Your task to perform on an android device: What's the weather going to be this weekend? Image 0: 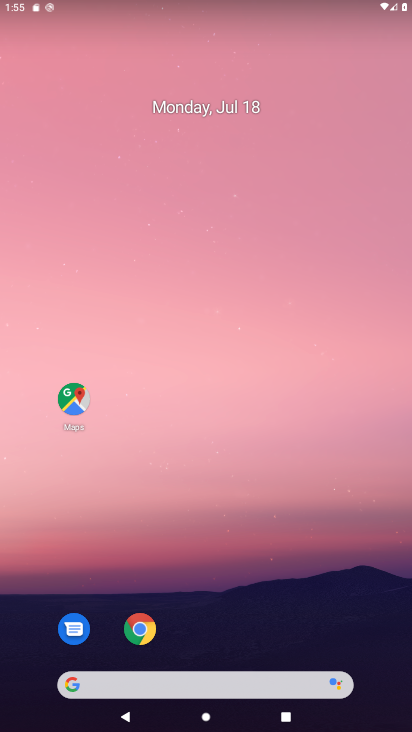
Step 0: drag from (183, 530) to (272, 0)
Your task to perform on an android device: What's the weather going to be this weekend? Image 1: 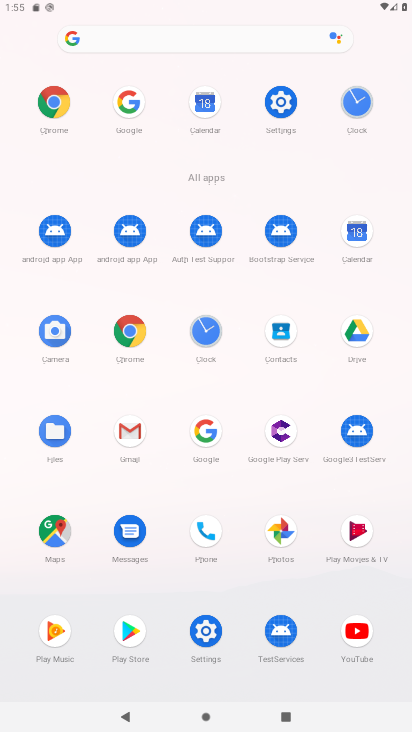
Step 1: click (206, 432)
Your task to perform on an android device: What's the weather going to be this weekend? Image 2: 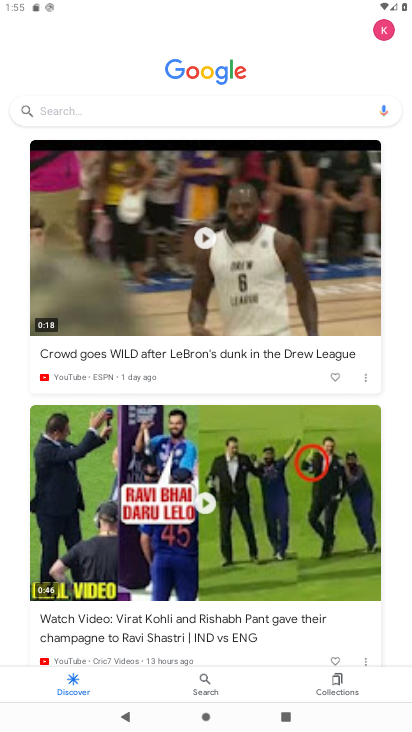
Step 2: click (177, 105)
Your task to perform on an android device: What's the weather going to be this weekend? Image 3: 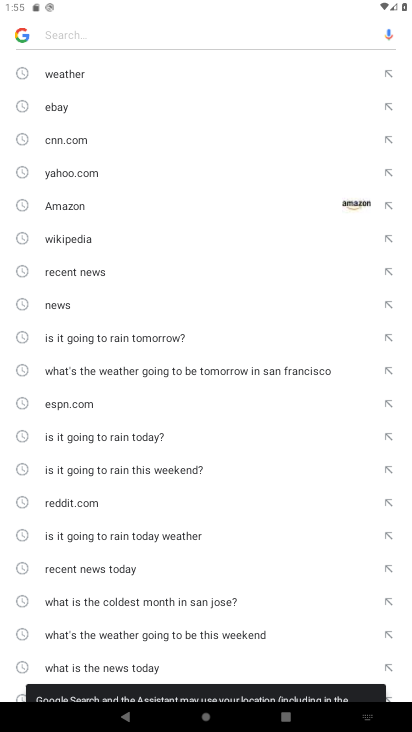
Step 3: click (73, 80)
Your task to perform on an android device: What's the weather going to be this weekend? Image 4: 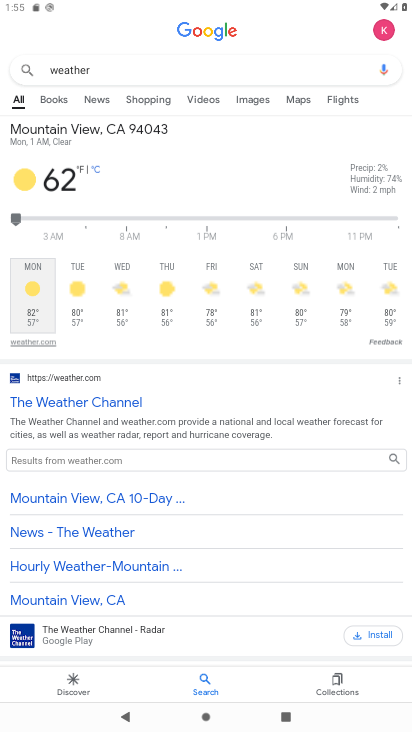
Step 4: click (33, 344)
Your task to perform on an android device: What's the weather going to be this weekend? Image 5: 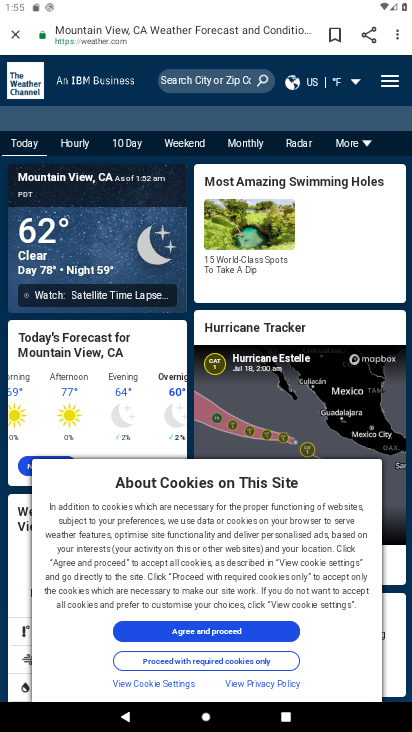
Step 5: click (169, 151)
Your task to perform on an android device: What's the weather going to be this weekend? Image 6: 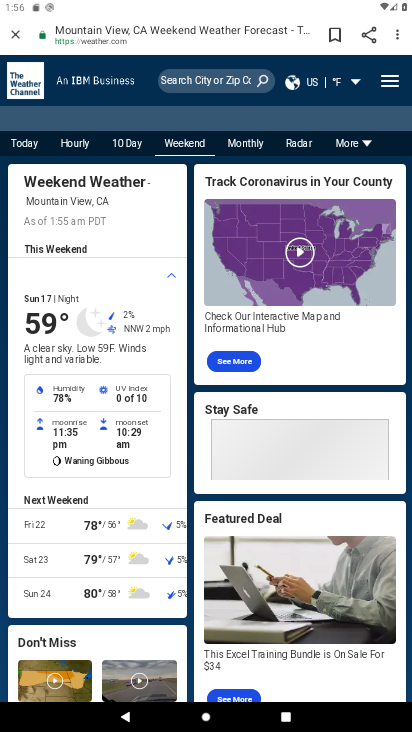
Step 6: task complete